Your task to perform on an android device: turn off wifi Image 0: 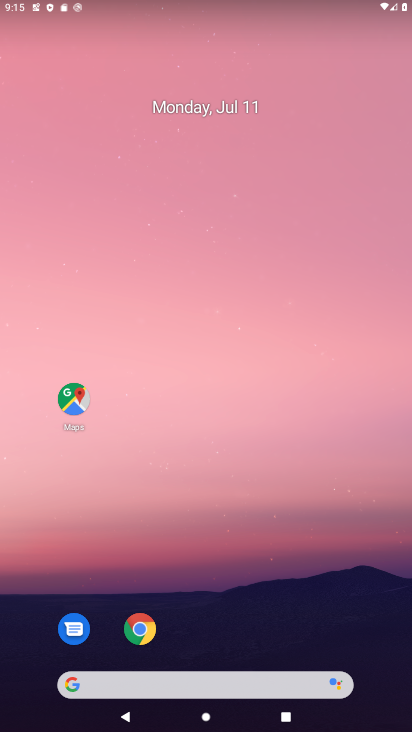
Step 0: drag from (48, 711) to (134, 275)
Your task to perform on an android device: turn off wifi Image 1: 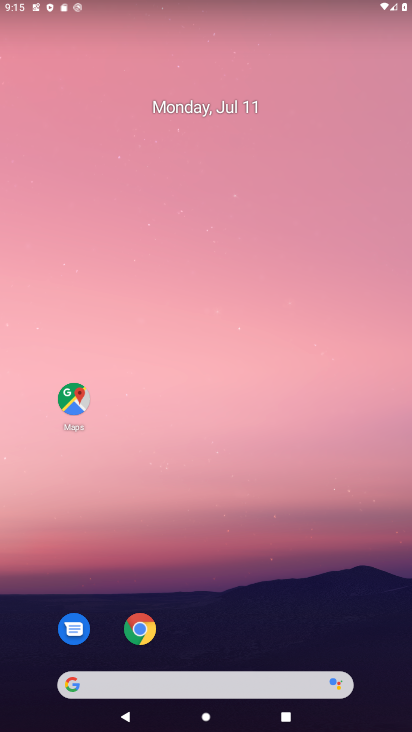
Step 1: drag from (14, 701) to (250, 714)
Your task to perform on an android device: turn off wifi Image 2: 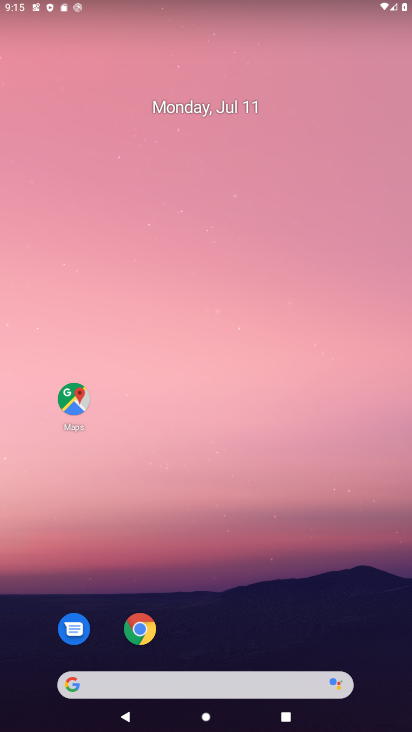
Step 2: drag from (75, 647) to (354, 3)
Your task to perform on an android device: turn off wifi Image 3: 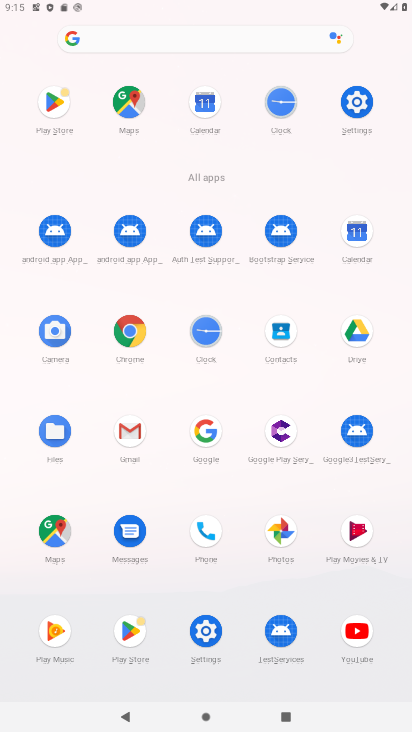
Step 3: click (201, 632)
Your task to perform on an android device: turn off wifi Image 4: 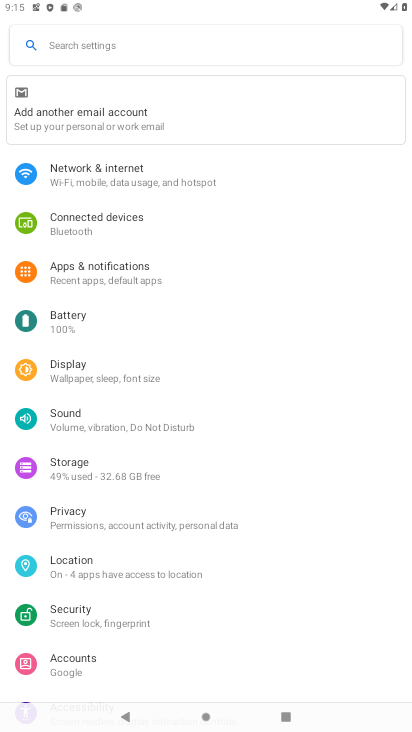
Step 4: click (95, 166)
Your task to perform on an android device: turn off wifi Image 5: 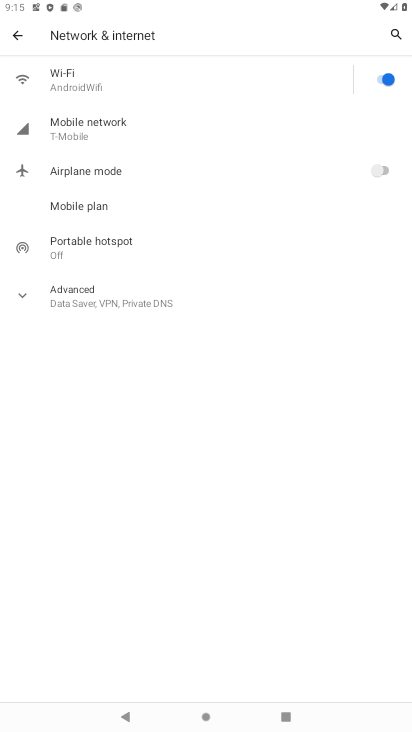
Step 5: click (381, 77)
Your task to perform on an android device: turn off wifi Image 6: 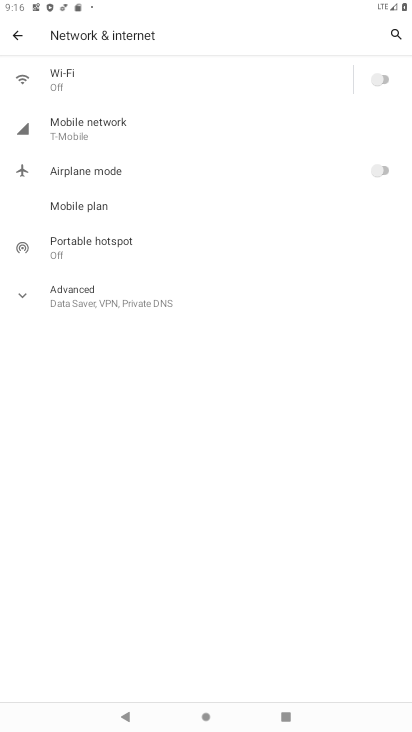
Step 6: task complete